Your task to perform on an android device: Go to network settings Image 0: 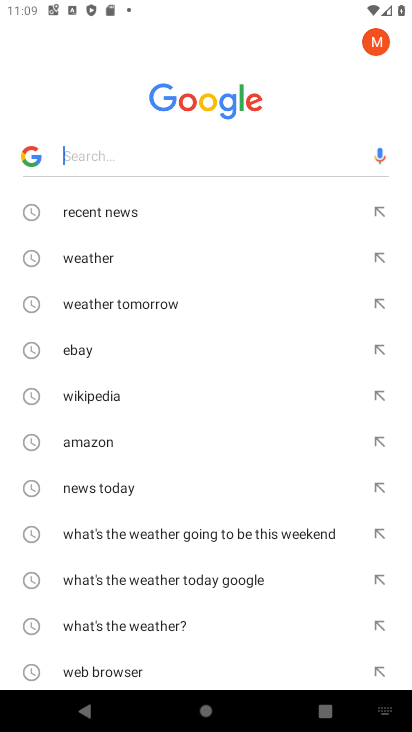
Step 0: press home button
Your task to perform on an android device: Go to network settings Image 1: 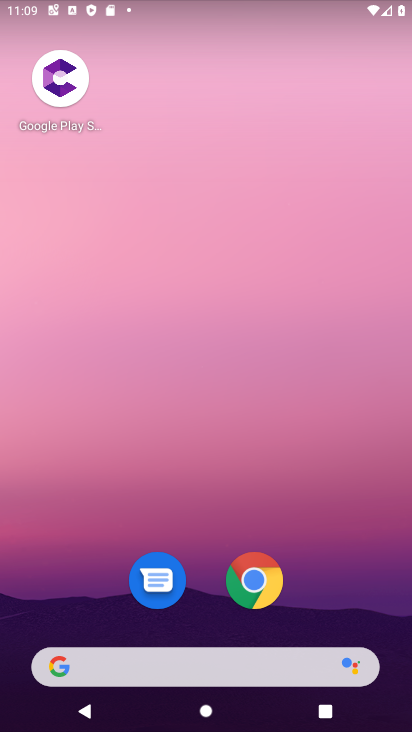
Step 1: drag from (229, 491) to (292, 187)
Your task to perform on an android device: Go to network settings Image 2: 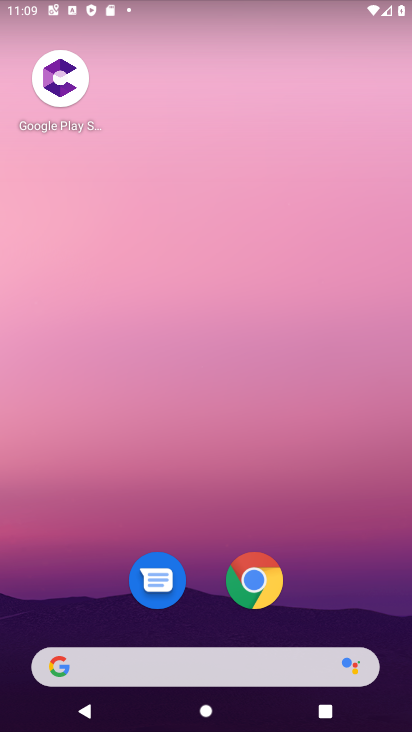
Step 2: drag from (218, 626) to (302, 216)
Your task to perform on an android device: Go to network settings Image 3: 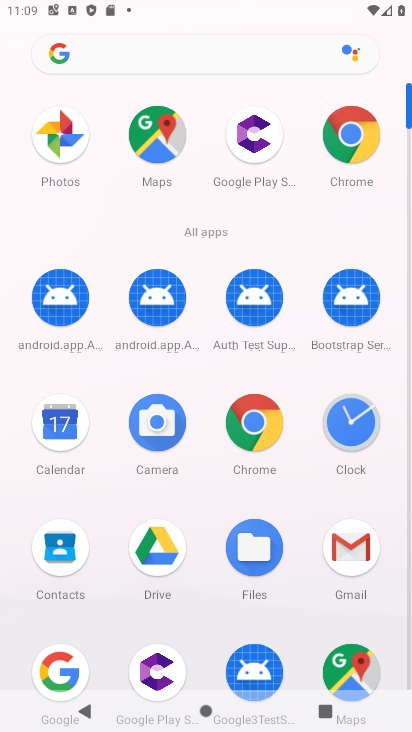
Step 3: drag from (238, 489) to (270, 173)
Your task to perform on an android device: Go to network settings Image 4: 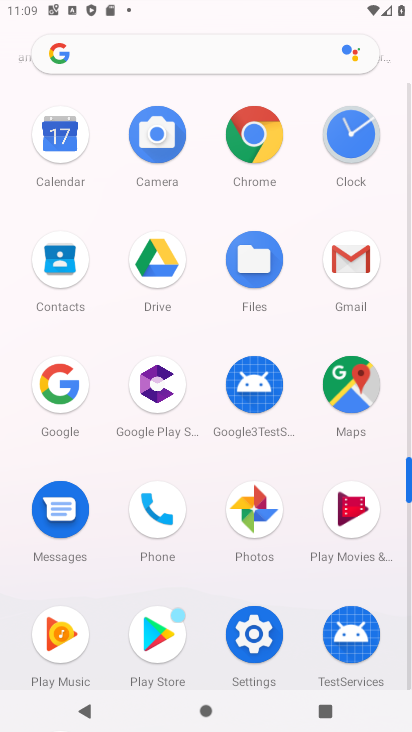
Step 4: click (255, 643)
Your task to perform on an android device: Go to network settings Image 5: 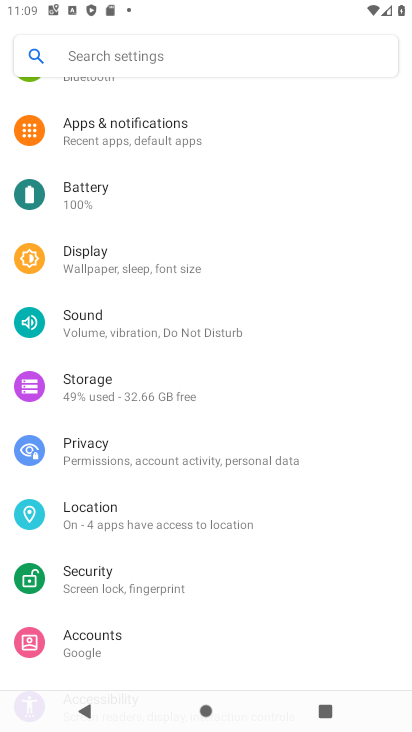
Step 5: drag from (183, 325) to (185, 580)
Your task to perform on an android device: Go to network settings Image 6: 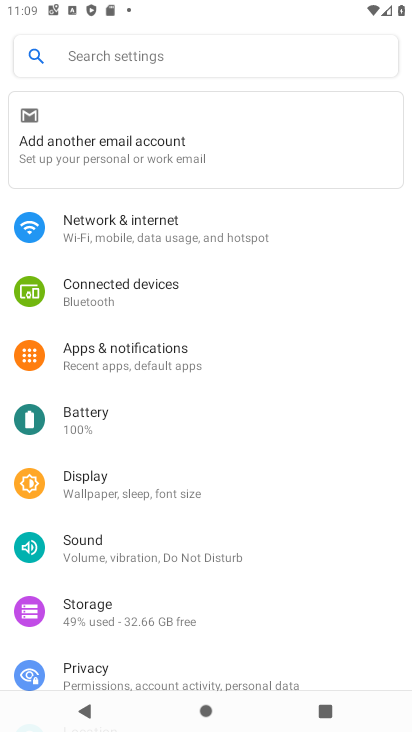
Step 6: click (190, 239)
Your task to perform on an android device: Go to network settings Image 7: 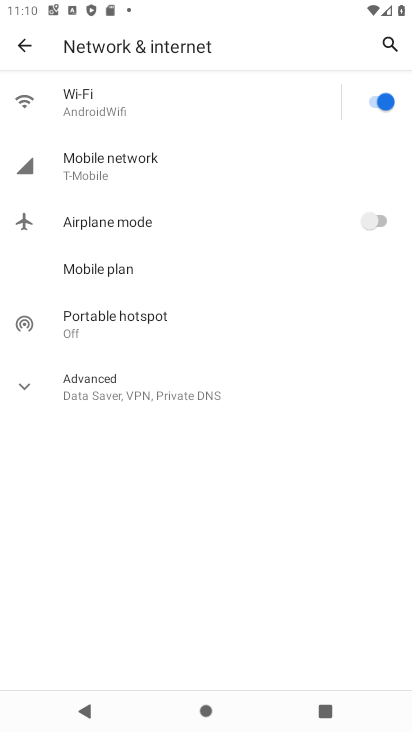
Step 7: click (149, 166)
Your task to perform on an android device: Go to network settings Image 8: 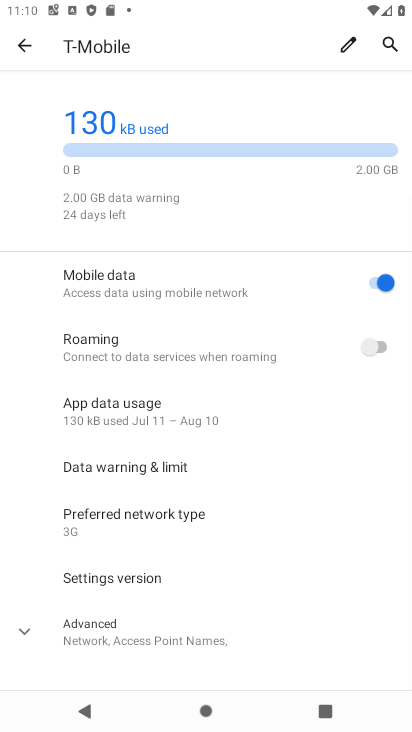
Step 8: task complete